Your task to perform on an android device: Open Youtube and go to the subscriptions tab Image 0: 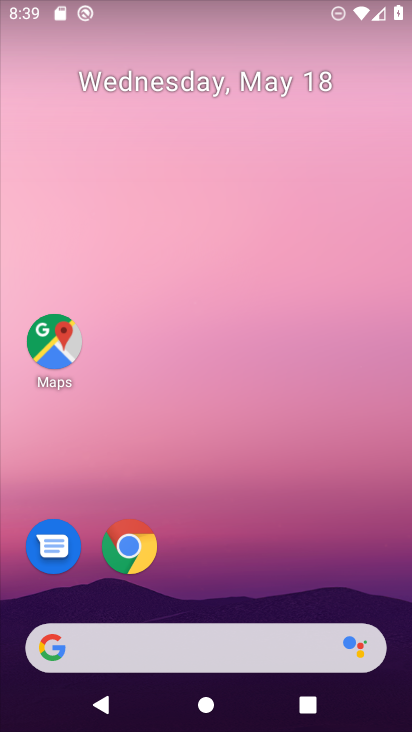
Step 0: drag from (246, 672) to (310, 177)
Your task to perform on an android device: Open Youtube and go to the subscriptions tab Image 1: 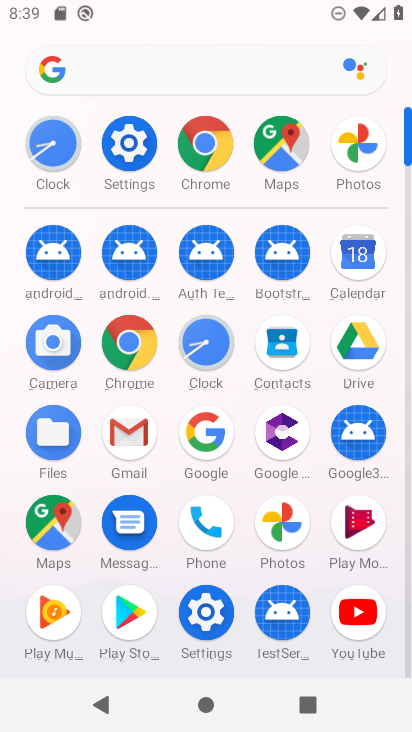
Step 1: click (336, 599)
Your task to perform on an android device: Open Youtube and go to the subscriptions tab Image 2: 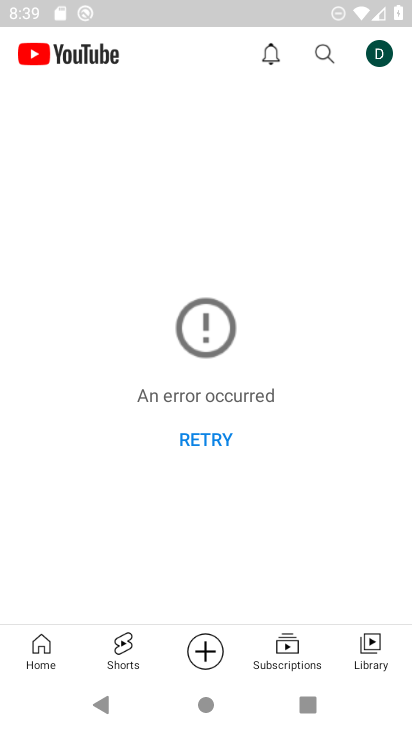
Step 2: click (283, 652)
Your task to perform on an android device: Open Youtube and go to the subscriptions tab Image 3: 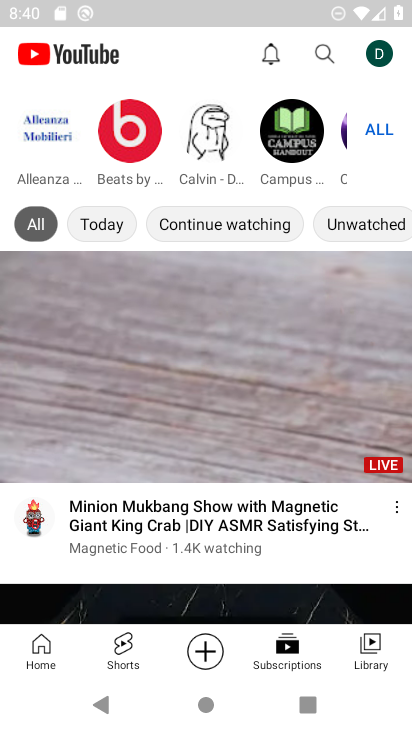
Step 3: task complete